Your task to perform on an android device: Go to network settings Image 0: 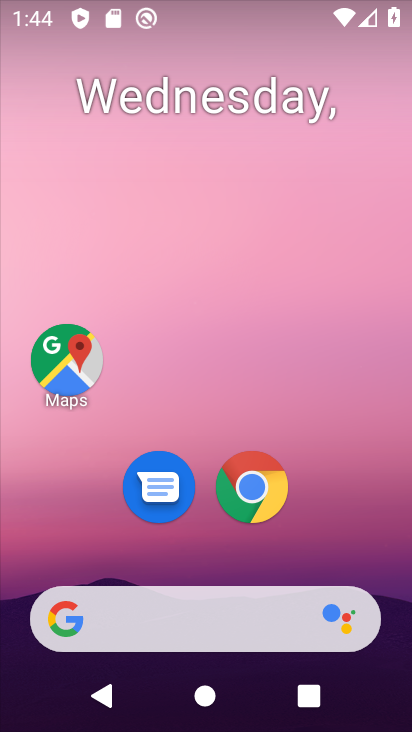
Step 0: click (233, 162)
Your task to perform on an android device: Go to network settings Image 1: 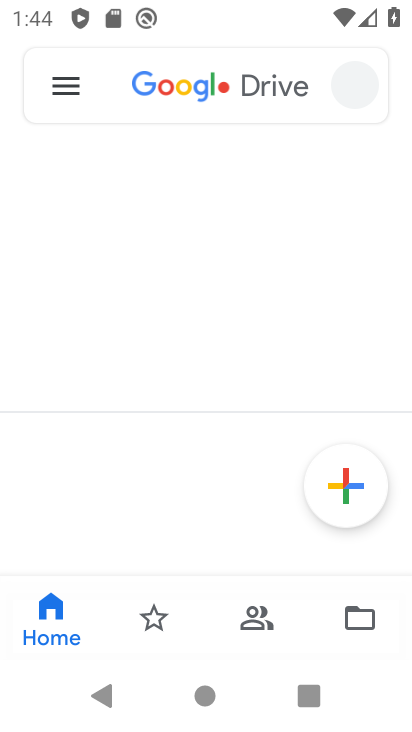
Step 1: press home button
Your task to perform on an android device: Go to network settings Image 2: 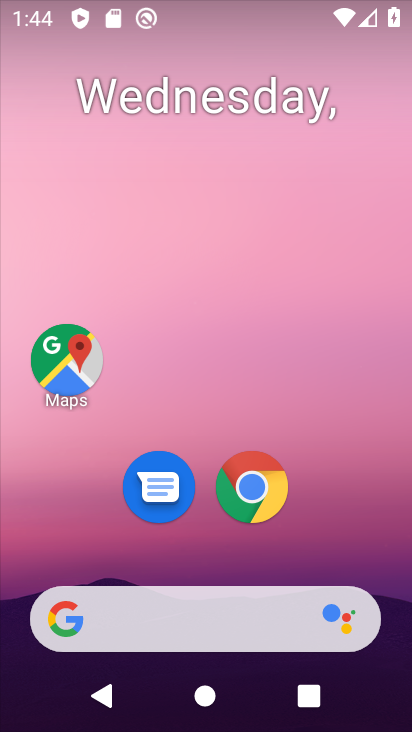
Step 2: drag from (339, 496) to (218, 61)
Your task to perform on an android device: Go to network settings Image 3: 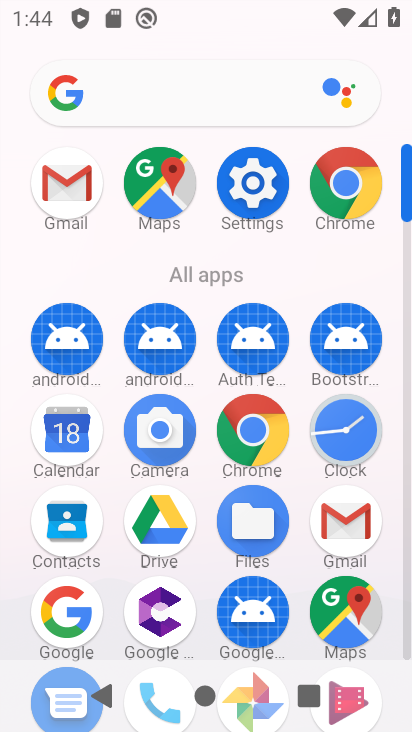
Step 3: click (247, 176)
Your task to perform on an android device: Go to network settings Image 4: 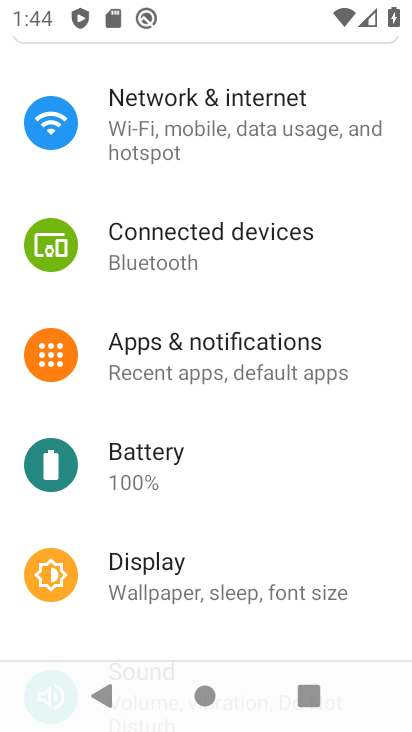
Step 4: click (196, 95)
Your task to perform on an android device: Go to network settings Image 5: 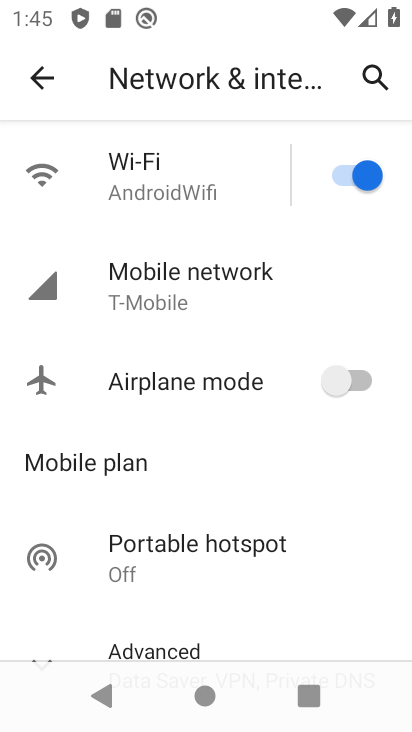
Step 5: task complete